Your task to perform on an android device: Search for the Nintendo Switch. Image 0: 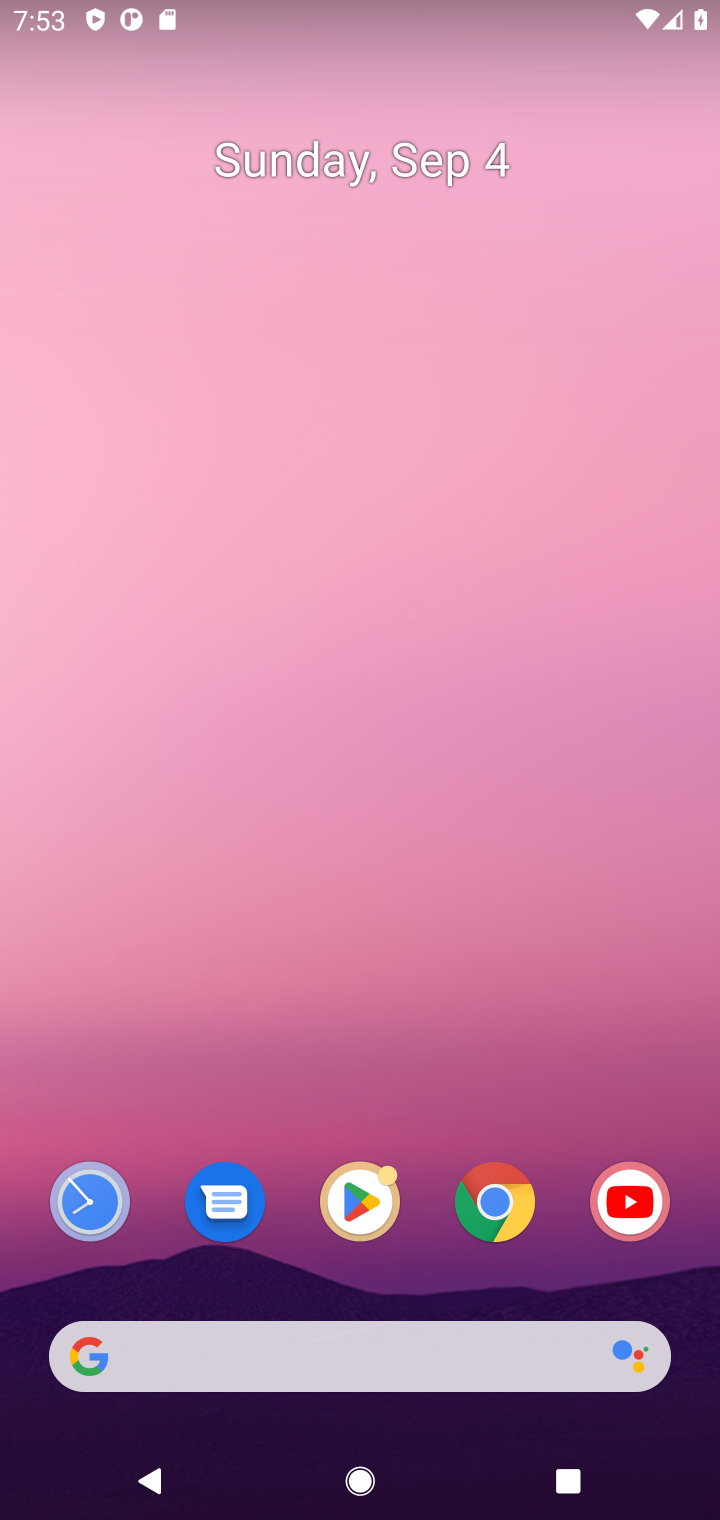
Step 0: click (493, 1209)
Your task to perform on an android device: Search for the Nintendo Switch. Image 1: 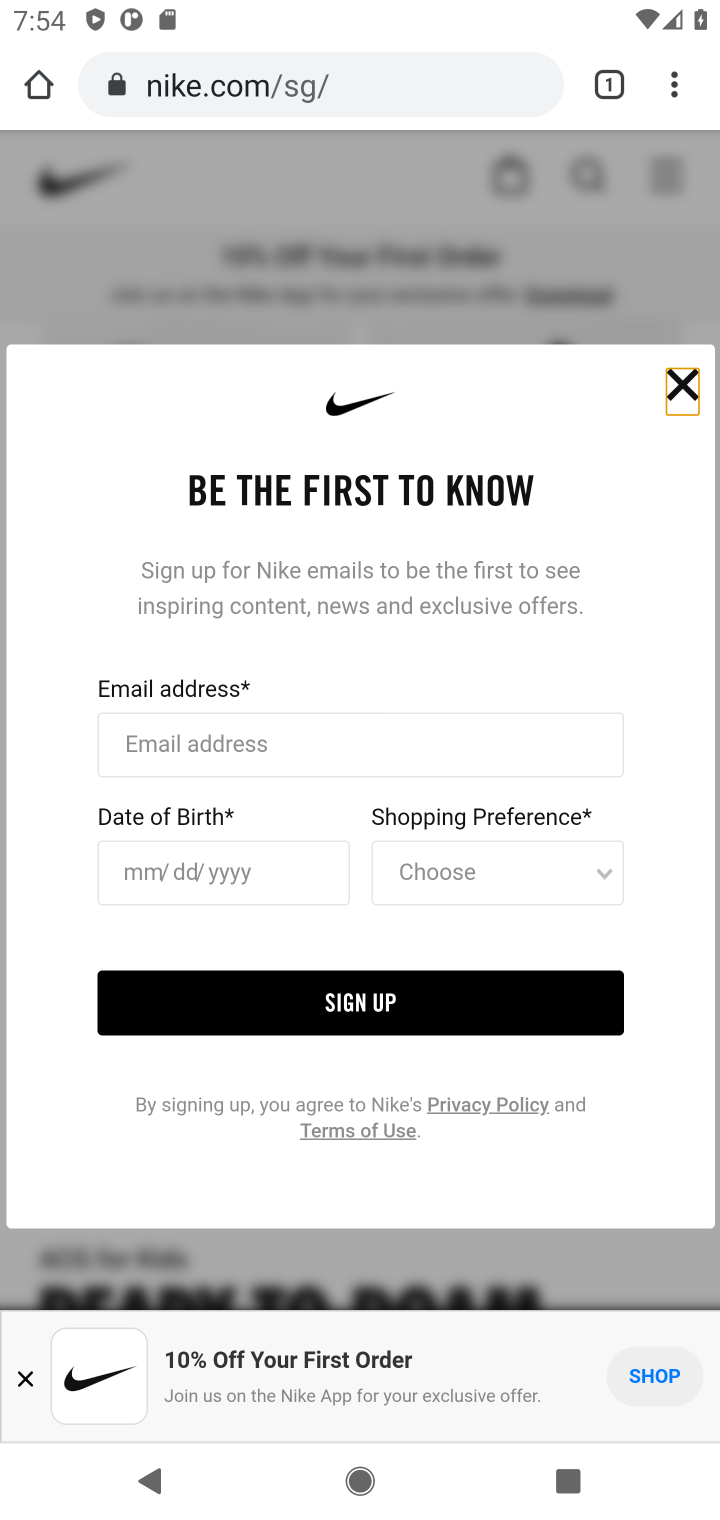
Step 1: click (681, 391)
Your task to perform on an android device: Search for the Nintendo Switch. Image 2: 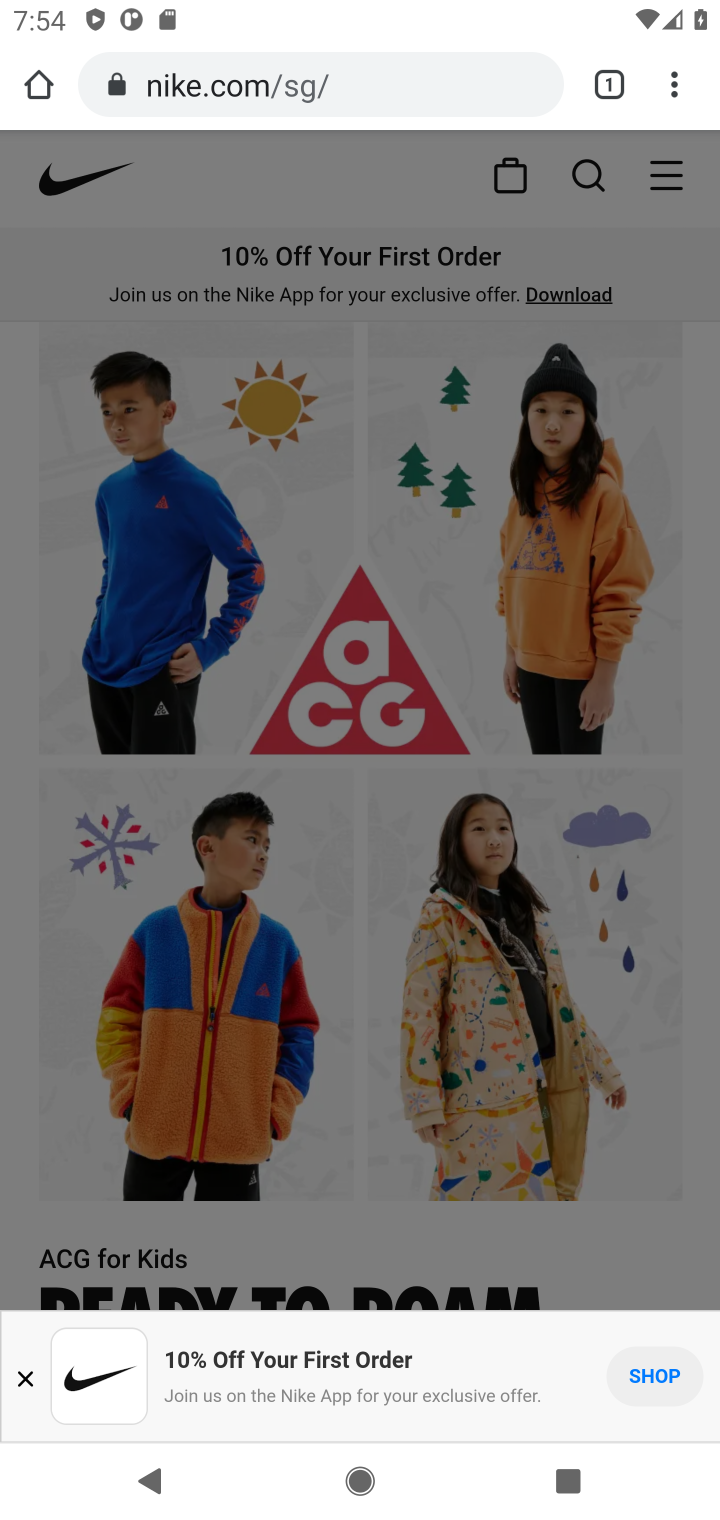
Step 2: click (357, 89)
Your task to perform on an android device: Search for the Nintendo Switch. Image 3: 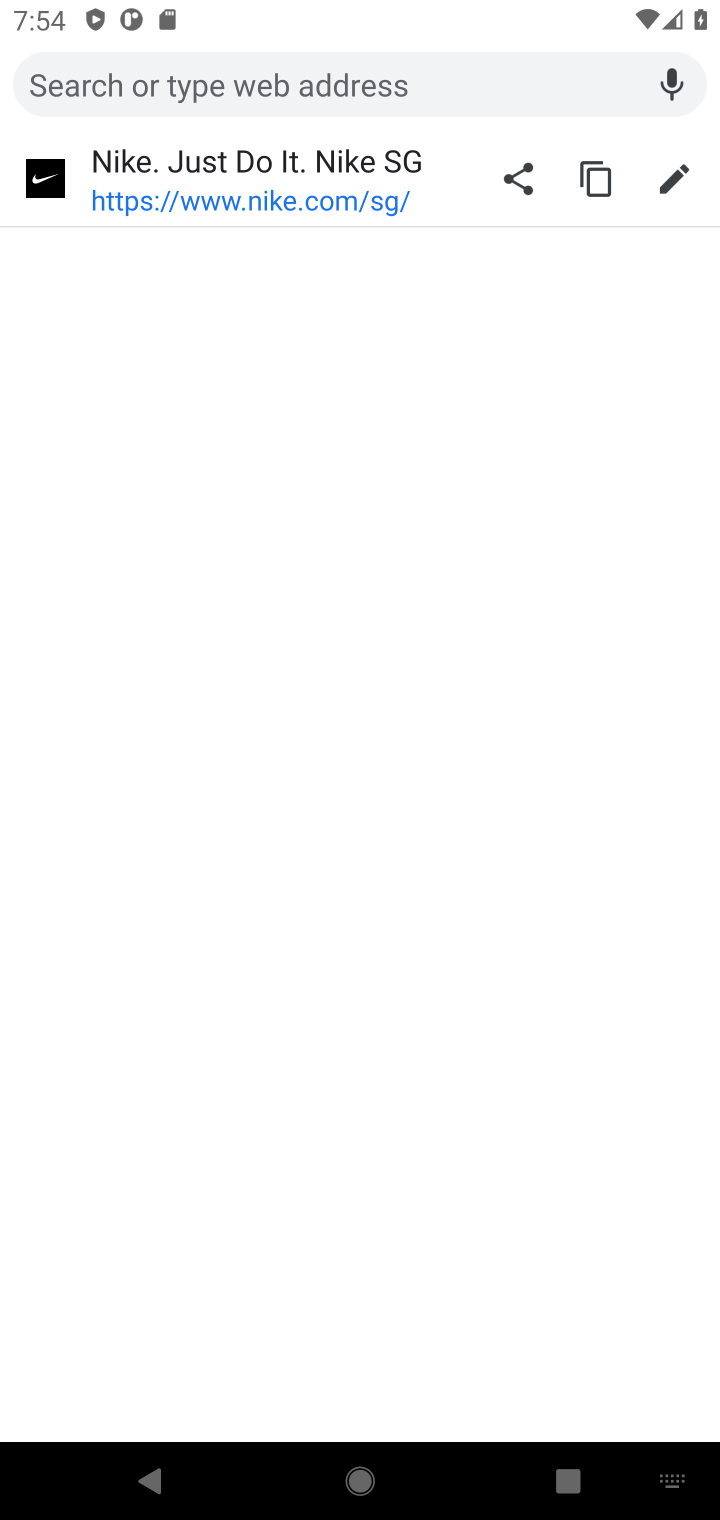
Step 3: type "nintendo switch"
Your task to perform on an android device: Search for the Nintendo Switch. Image 4: 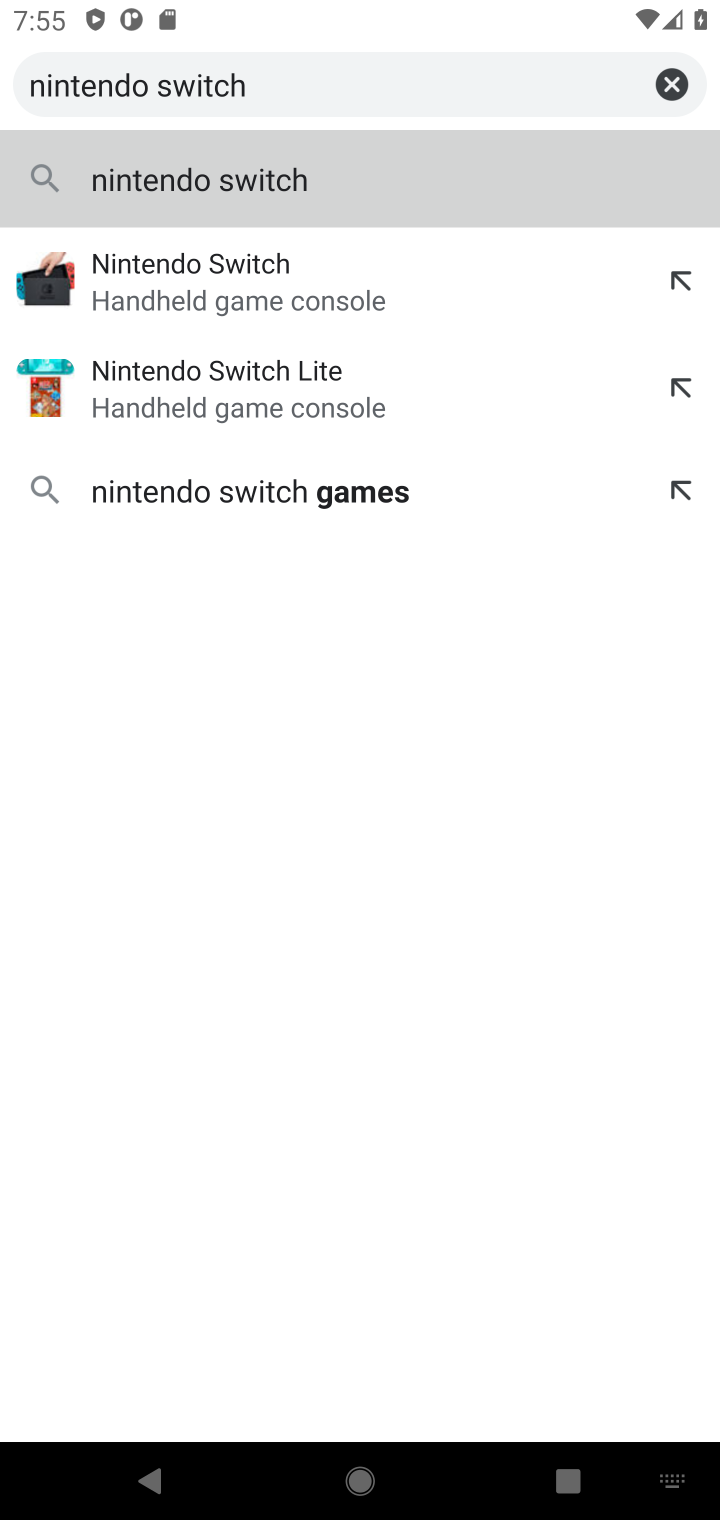
Step 4: click (272, 186)
Your task to perform on an android device: Search for the Nintendo Switch. Image 5: 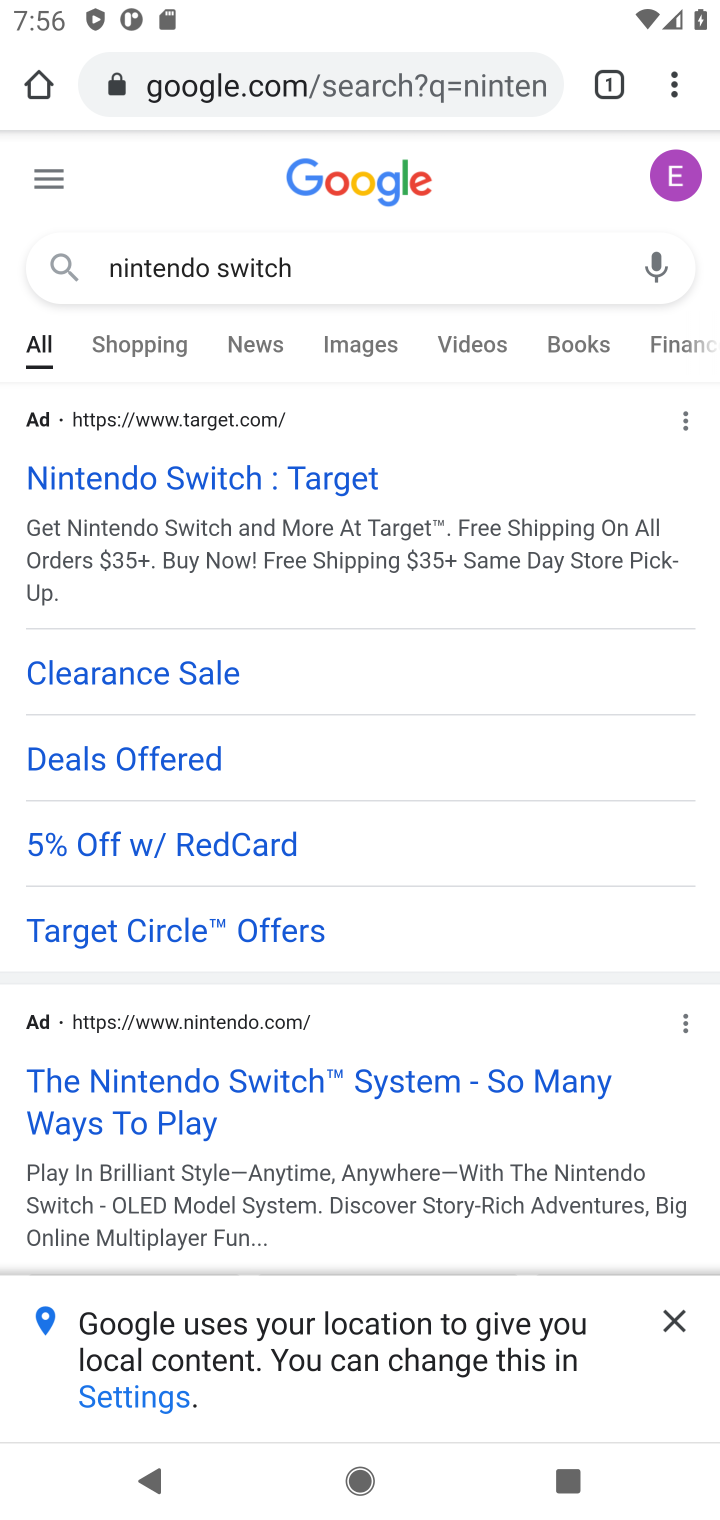
Step 5: task complete